Your task to perform on an android device: Go to eBay Image 0: 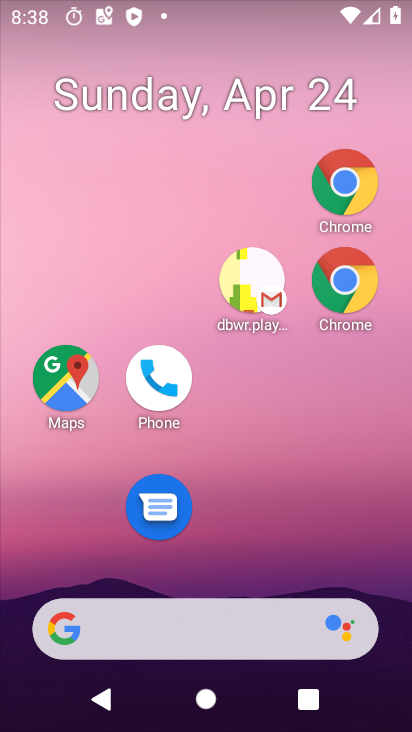
Step 0: click (82, 13)
Your task to perform on an android device: Go to eBay Image 1: 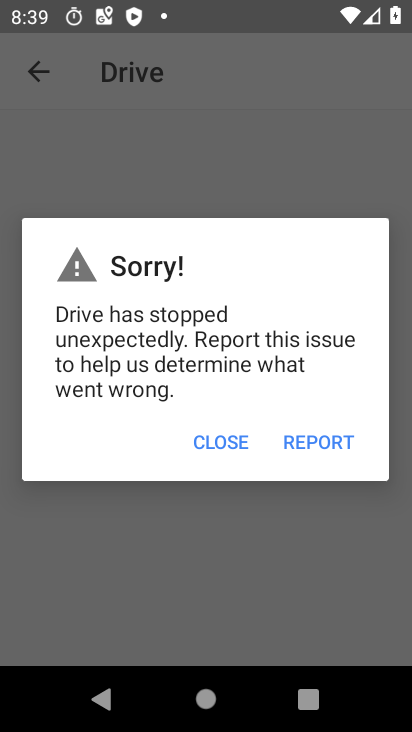
Step 1: click (226, 440)
Your task to perform on an android device: Go to eBay Image 2: 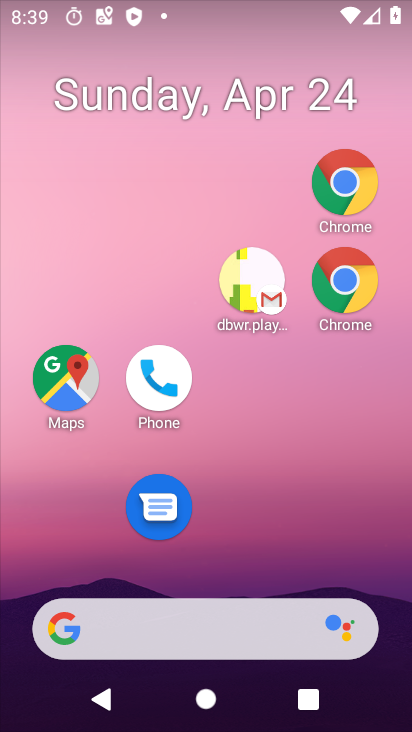
Step 2: drag from (286, 589) to (219, 142)
Your task to perform on an android device: Go to eBay Image 3: 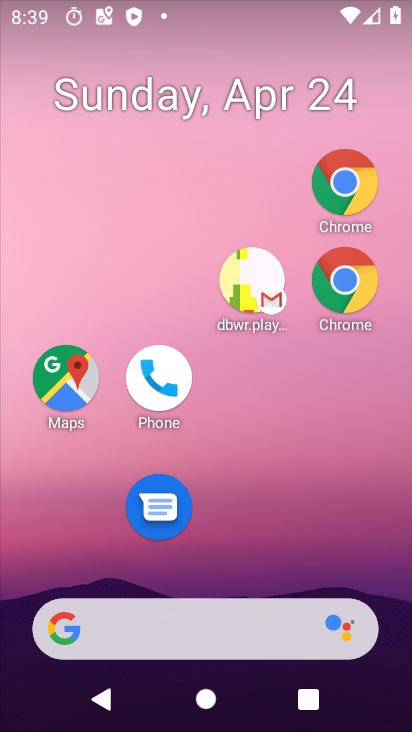
Step 3: drag from (248, 584) to (237, 27)
Your task to perform on an android device: Go to eBay Image 4: 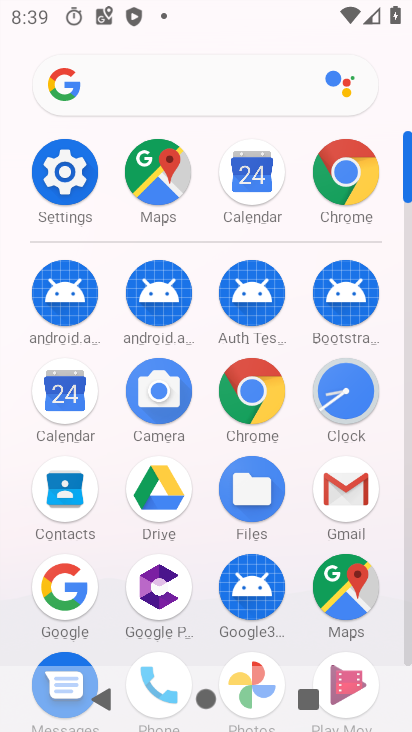
Step 4: click (344, 177)
Your task to perform on an android device: Go to eBay Image 5: 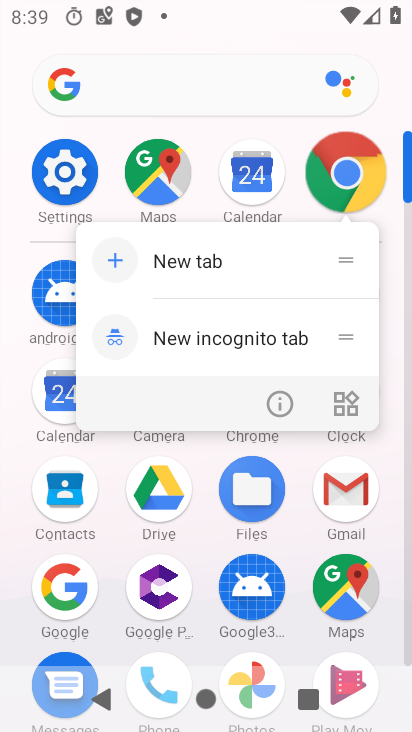
Step 5: click (352, 183)
Your task to perform on an android device: Go to eBay Image 6: 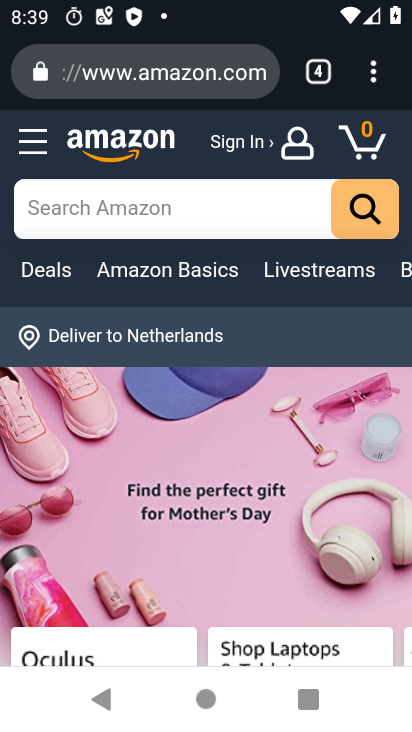
Step 6: drag from (375, 83) to (101, 144)
Your task to perform on an android device: Go to eBay Image 7: 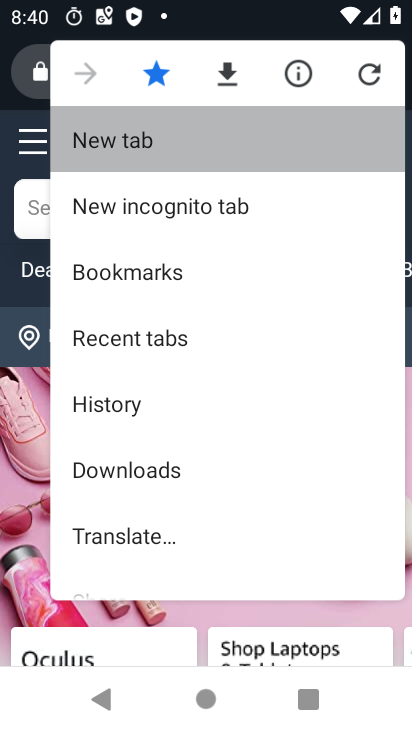
Step 7: click (101, 144)
Your task to perform on an android device: Go to eBay Image 8: 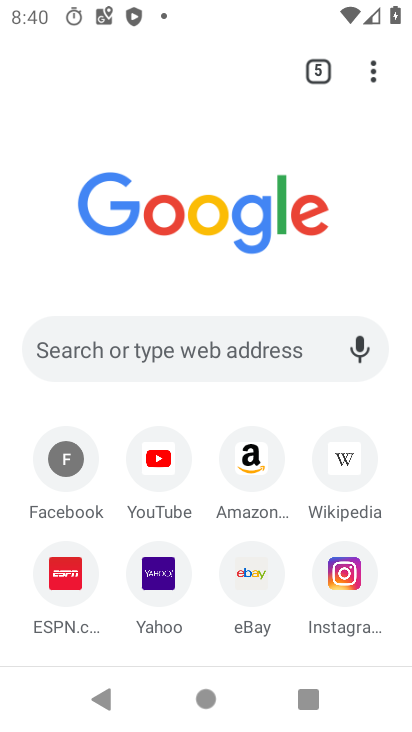
Step 8: click (104, 116)
Your task to perform on an android device: Go to eBay Image 9: 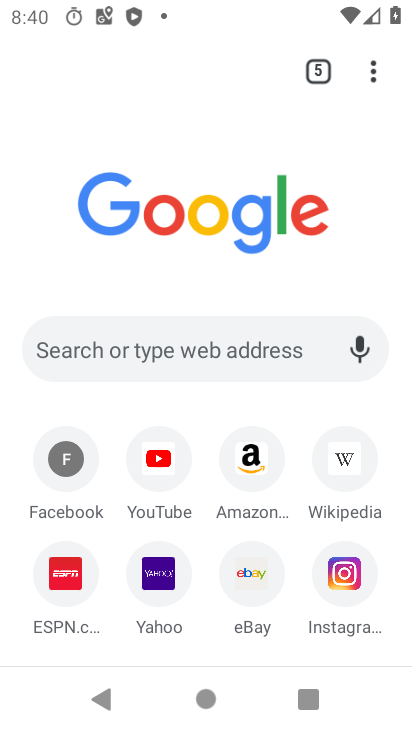
Step 9: click (247, 566)
Your task to perform on an android device: Go to eBay Image 10: 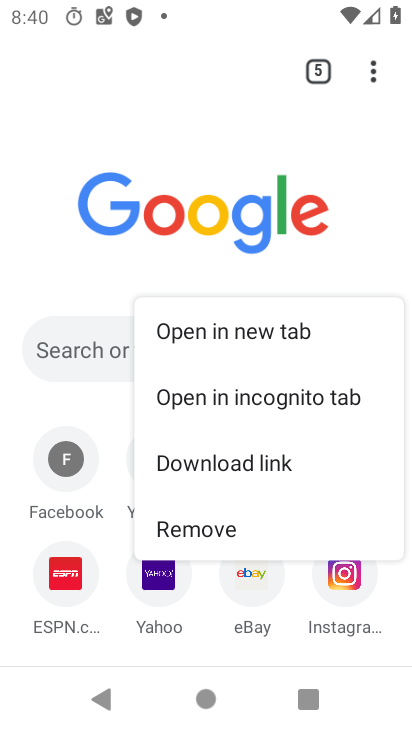
Step 10: click (248, 560)
Your task to perform on an android device: Go to eBay Image 11: 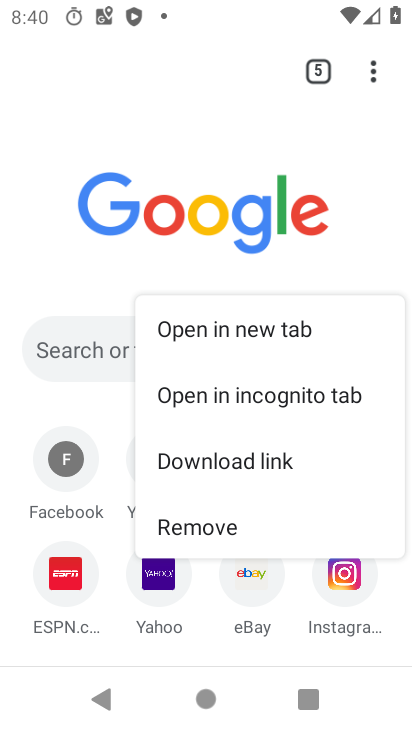
Step 11: click (238, 334)
Your task to perform on an android device: Go to eBay Image 12: 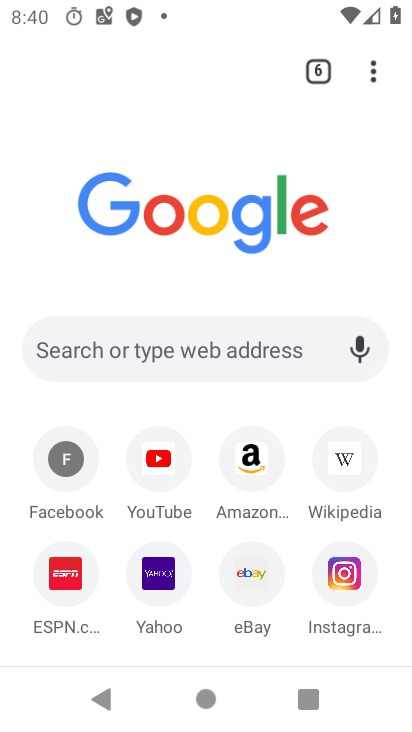
Step 12: click (244, 577)
Your task to perform on an android device: Go to eBay Image 13: 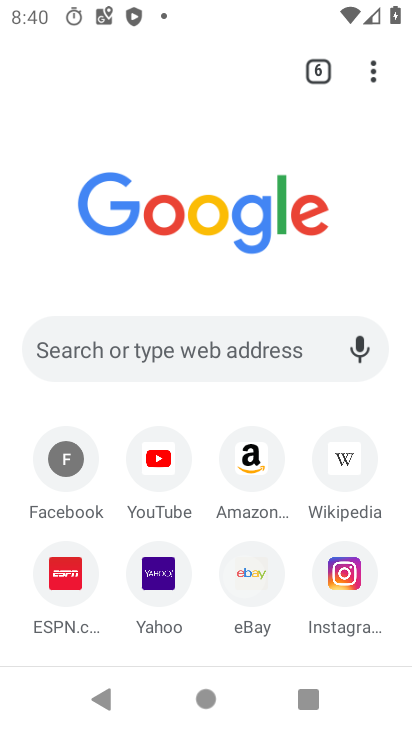
Step 13: click (244, 577)
Your task to perform on an android device: Go to eBay Image 14: 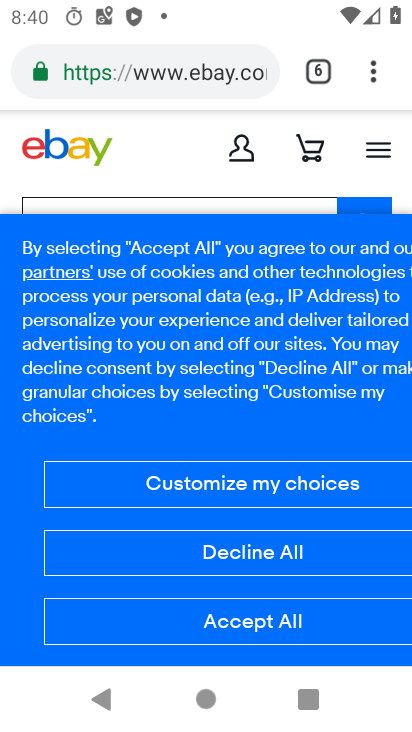
Step 14: task complete